Your task to perform on an android device: clear all cookies in the chrome app Image 0: 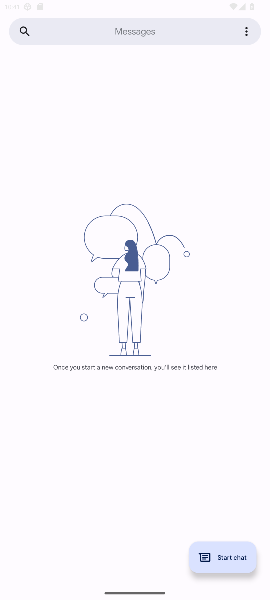
Step 0: press home button
Your task to perform on an android device: clear all cookies in the chrome app Image 1: 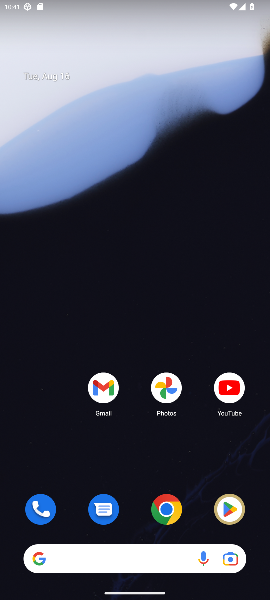
Step 1: drag from (193, 476) to (211, 60)
Your task to perform on an android device: clear all cookies in the chrome app Image 2: 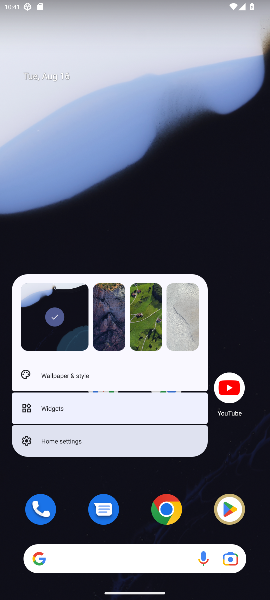
Step 2: click (242, 155)
Your task to perform on an android device: clear all cookies in the chrome app Image 3: 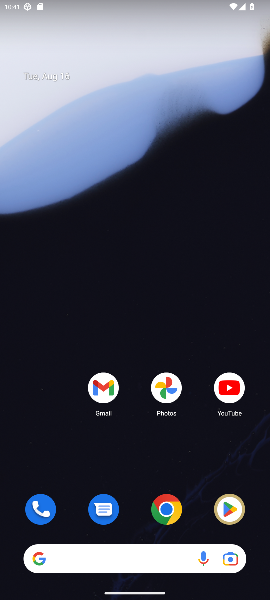
Step 3: drag from (194, 462) to (196, 40)
Your task to perform on an android device: clear all cookies in the chrome app Image 4: 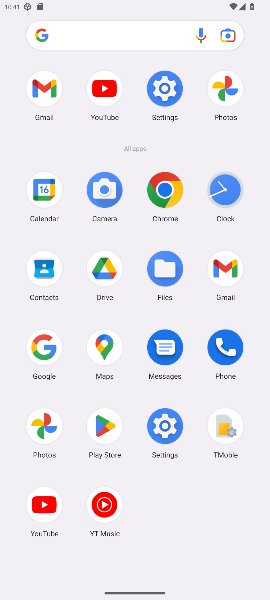
Step 4: click (161, 194)
Your task to perform on an android device: clear all cookies in the chrome app Image 5: 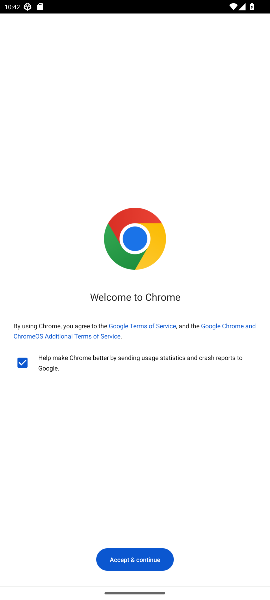
Step 5: click (134, 560)
Your task to perform on an android device: clear all cookies in the chrome app Image 6: 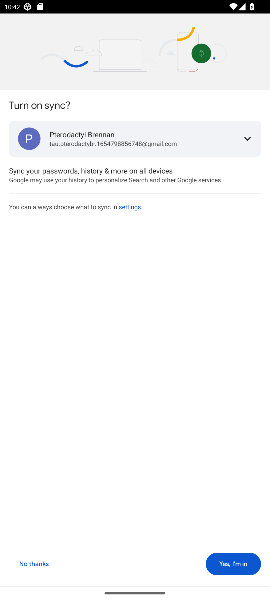
Step 6: click (225, 563)
Your task to perform on an android device: clear all cookies in the chrome app Image 7: 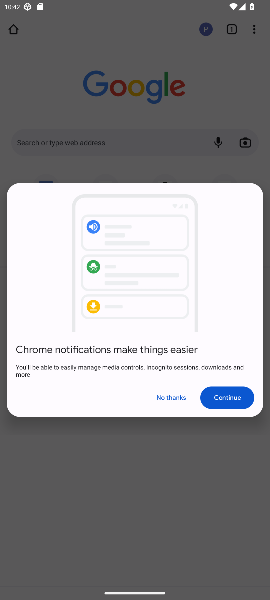
Step 7: click (225, 394)
Your task to perform on an android device: clear all cookies in the chrome app Image 8: 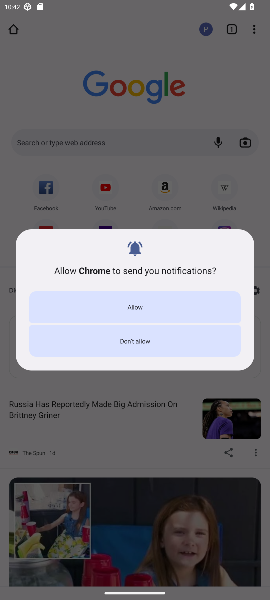
Step 8: click (177, 335)
Your task to perform on an android device: clear all cookies in the chrome app Image 9: 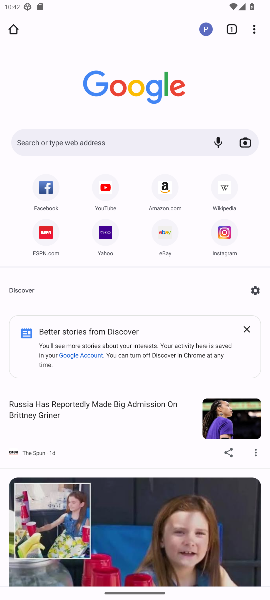
Step 9: drag from (254, 28) to (167, 262)
Your task to perform on an android device: clear all cookies in the chrome app Image 10: 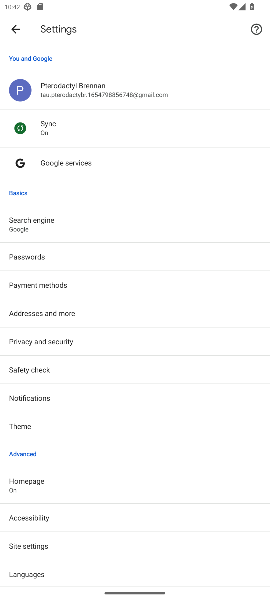
Step 10: drag from (91, 528) to (143, 289)
Your task to perform on an android device: clear all cookies in the chrome app Image 11: 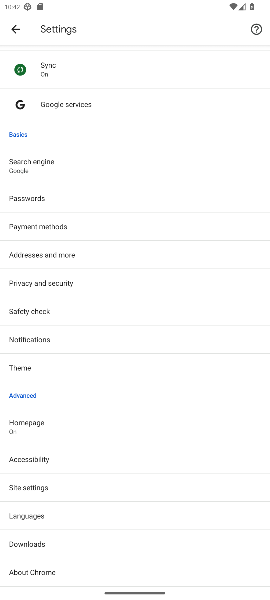
Step 11: click (28, 485)
Your task to perform on an android device: clear all cookies in the chrome app Image 12: 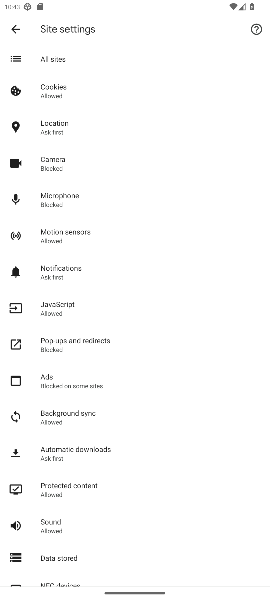
Step 12: press back button
Your task to perform on an android device: clear all cookies in the chrome app Image 13: 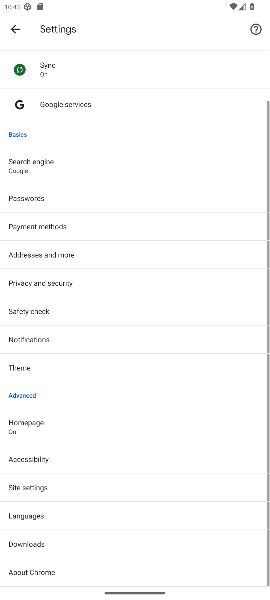
Step 13: press back button
Your task to perform on an android device: clear all cookies in the chrome app Image 14: 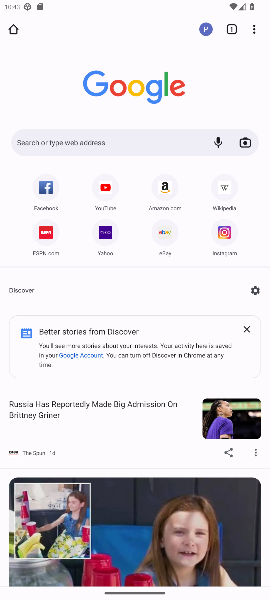
Step 14: drag from (255, 24) to (165, 122)
Your task to perform on an android device: clear all cookies in the chrome app Image 15: 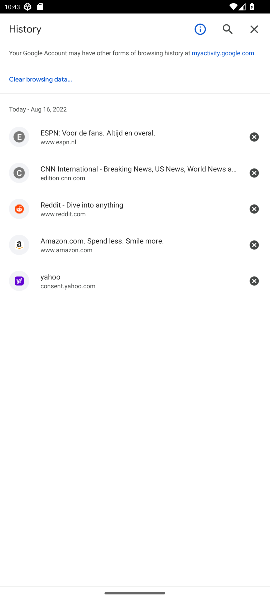
Step 15: click (54, 77)
Your task to perform on an android device: clear all cookies in the chrome app Image 16: 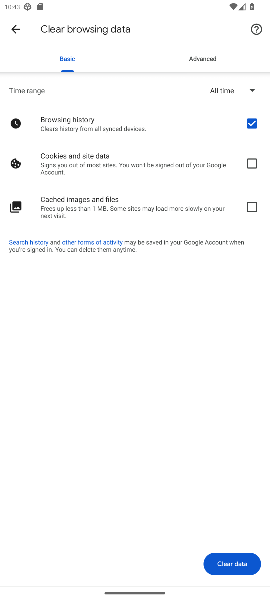
Step 16: click (253, 164)
Your task to perform on an android device: clear all cookies in the chrome app Image 17: 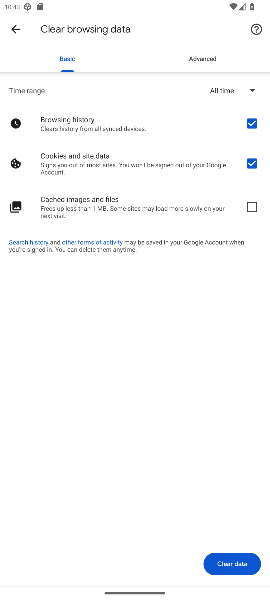
Step 17: click (223, 573)
Your task to perform on an android device: clear all cookies in the chrome app Image 18: 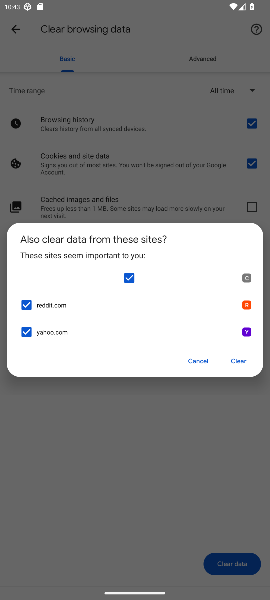
Step 18: click (240, 356)
Your task to perform on an android device: clear all cookies in the chrome app Image 19: 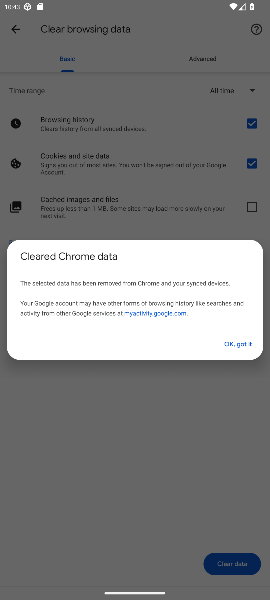
Step 19: click (241, 347)
Your task to perform on an android device: clear all cookies in the chrome app Image 20: 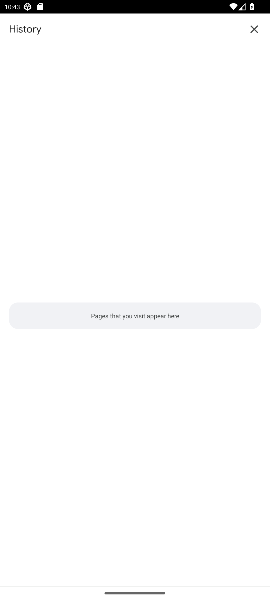
Step 20: task complete